Your task to perform on an android device: delete the emails in spam in the gmail app Image 0: 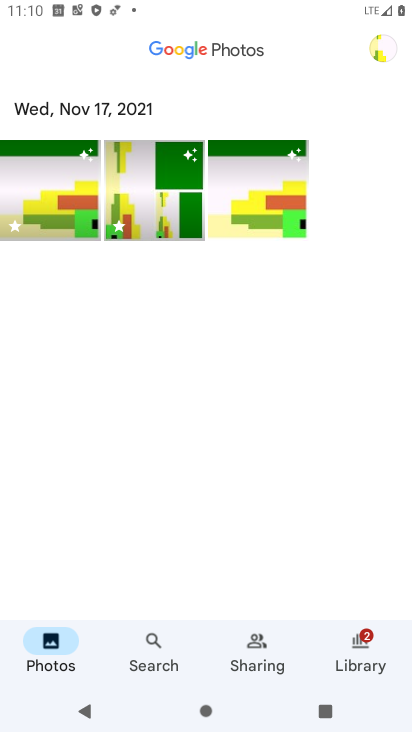
Step 0: press home button
Your task to perform on an android device: delete the emails in spam in the gmail app Image 1: 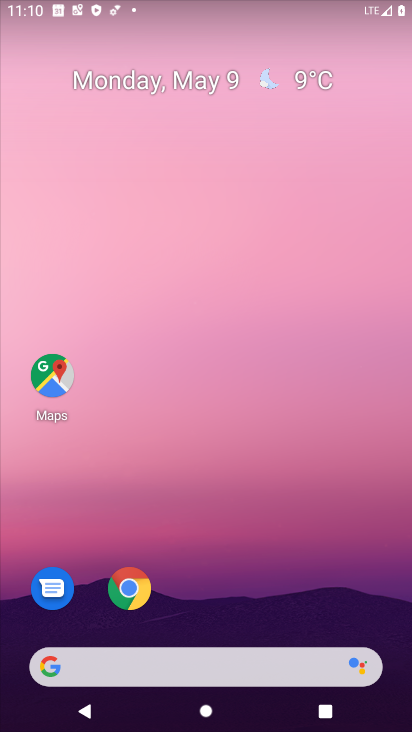
Step 1: drag from (157, 666) to (297, 165)
Your task to perform on an android device: delete the emails in spam in the gmail app Image 2: 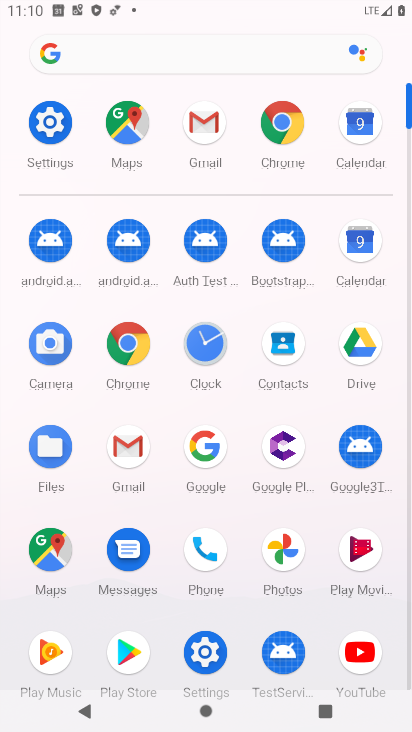
Step 2: click (208, 134)
Your task to perform on an android device: delete the emails in spam in the gmail app Image 3: 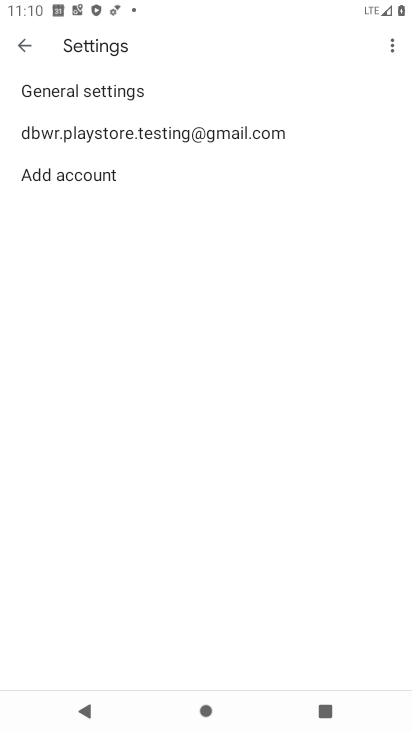
Step 3: click (18, 42)
Your task to perform on an android device: delete the emails in spam in the gmail app Image 4: 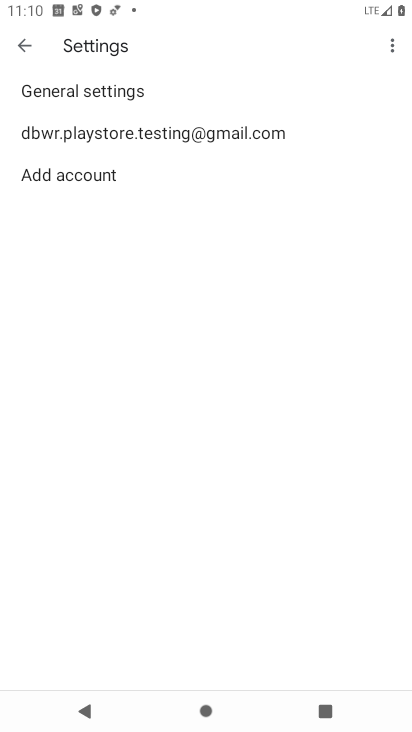
Step 4: click (24, 45)
Your task to perform on an android device: delete the emails in spam in the gmail app Image 5: 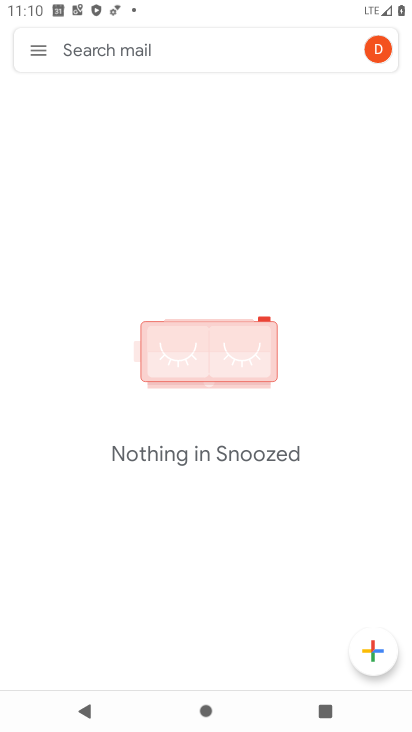
Step 5: click (37, 54)
Your task to perform on an android device: delete the emails in spam in the gmail app Image 6: 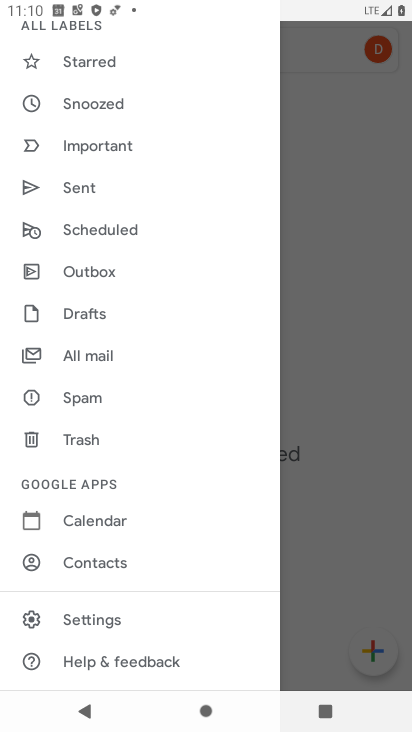
Step 6: click (82, 402)
Your task to perform on an android device: delete the emails in spam in the gmail app Image 7: 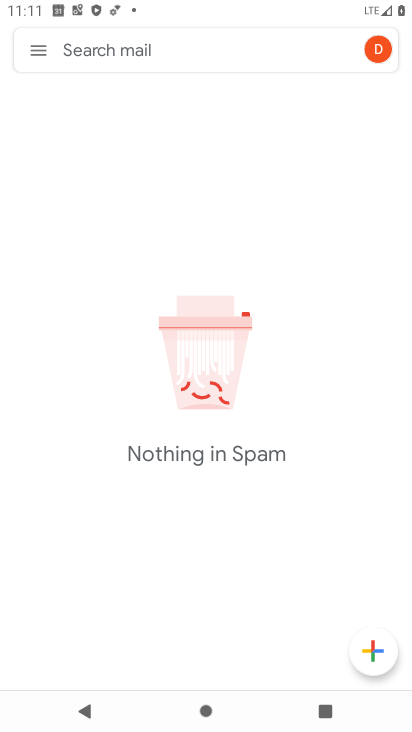
Step 7: task complete